Your task to perform on an android device: Go to Reddit.com Image 0: 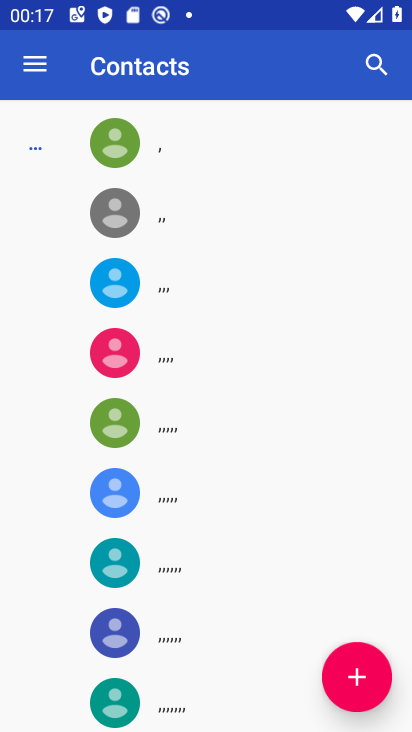
Step 0: press home button
Your task to perform on an android device: Go to Reddit.com Image 1: 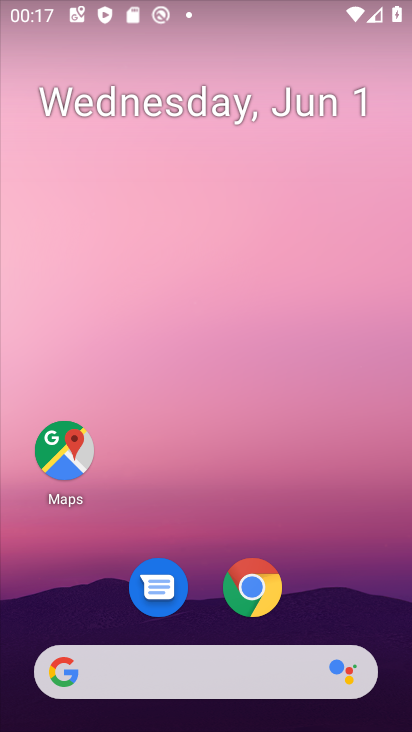
Step 1: click (242, 590)
Your task to perform on an android device: Go to Reddit.com Image 2: 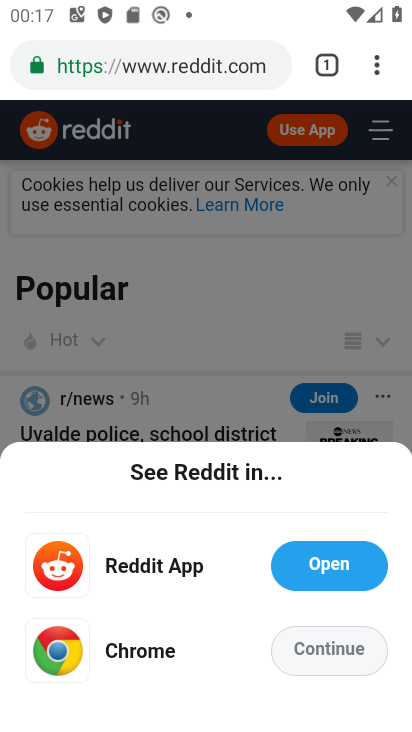
Step 2: task complete